Your task to perform on an android device: Go to notification settings Image 0: 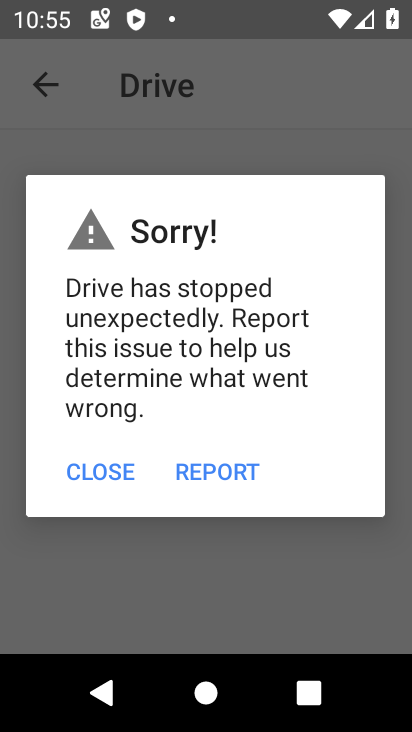
Step 0: press home button
Your task to perform on an android device: Go to notification settings Image 1: 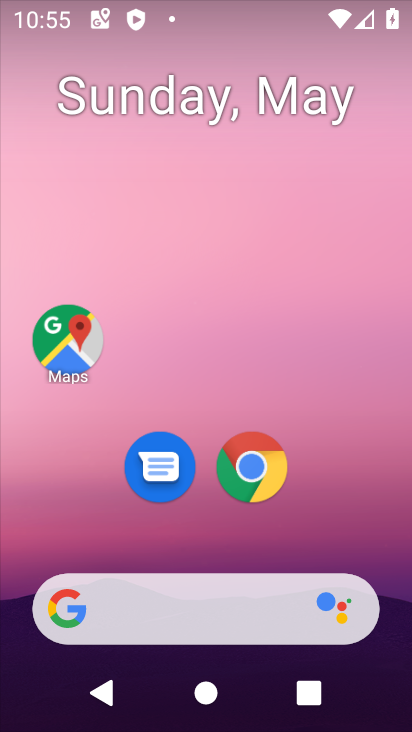
Step 1: drag from (361, 564) to (341, 10)
Your task to perform on an android device: Go to notification settings Image 2: 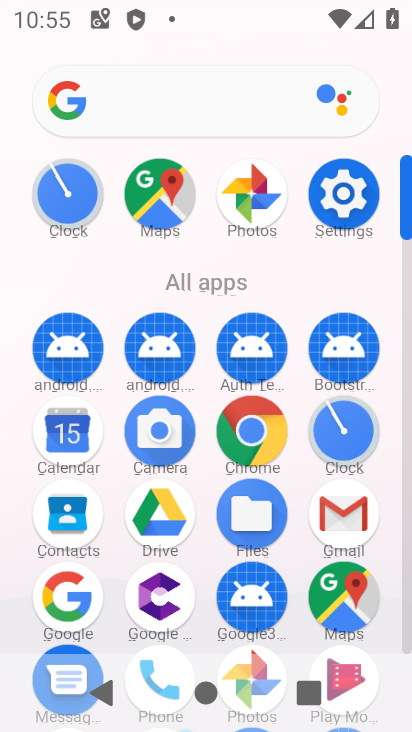
Step 2: click (332, 188)
Your task to perform on an android device: Go to notification settings Image 3: 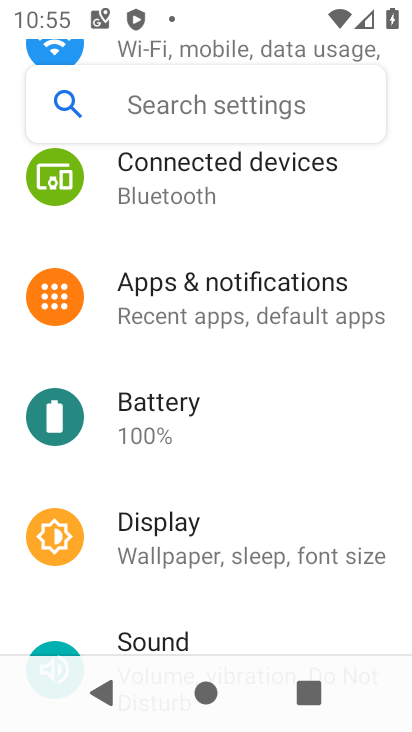
Step 3: click (215, 285)
Your task to perform on an android device: Go to notification settings Image 4: 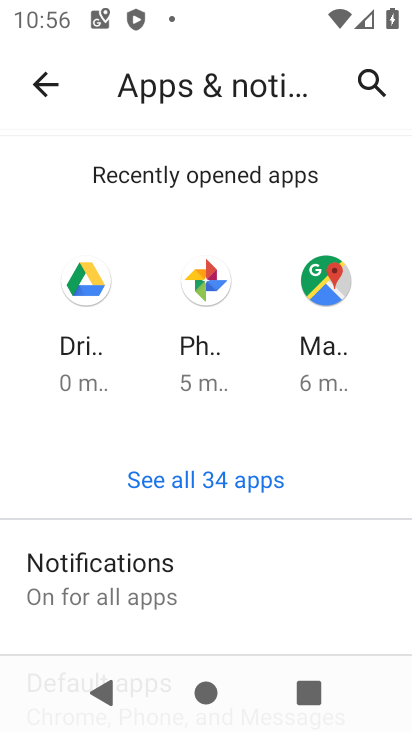
Step 4: task complete